Your task to perform on an android device: manage bookmarks in the chrome app Image 0: 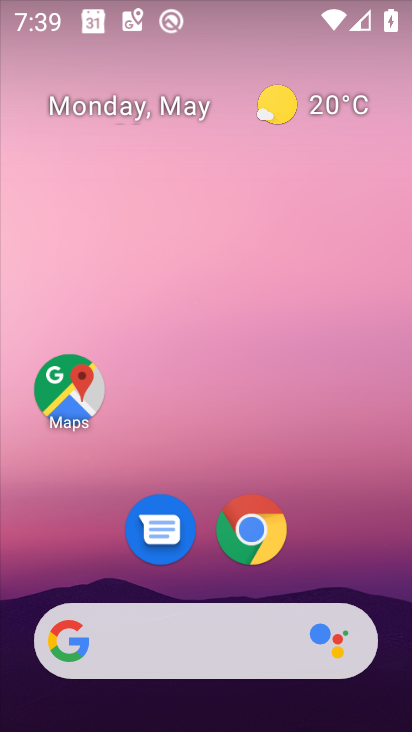
Step 0: click (237, 527)
Your task to perform on an android device: manage bookmarks in the chrome app Image 1: 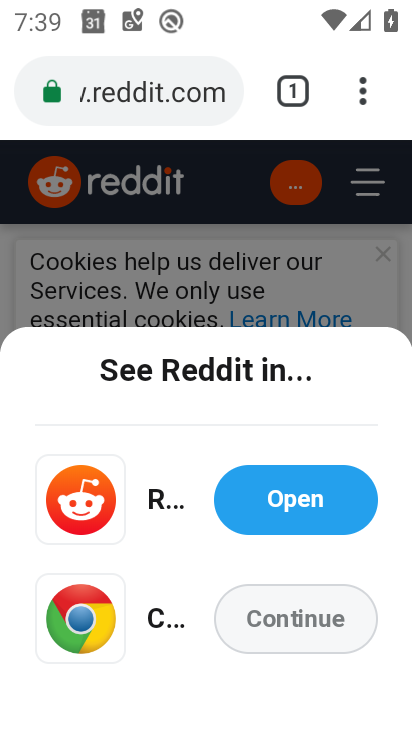
Step 1: press back button
Your task to perform on an android device: manage bookmarks in the chrome app Image 2: 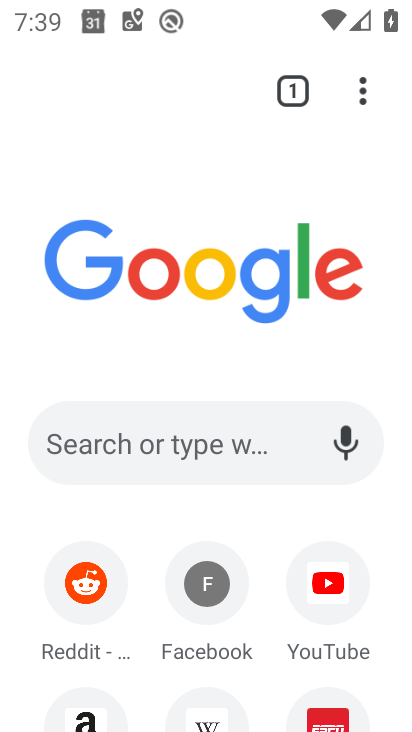
Step 2: click (365, 86)
Your task to perform on an android device: manage bookmarks in the chrome app Image 3: 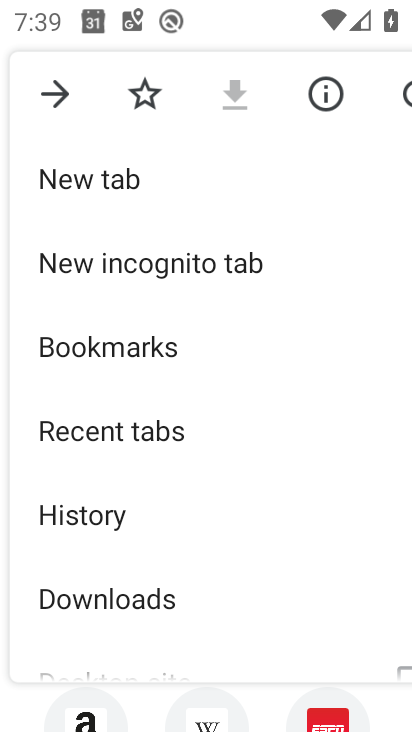
Step 3: click (106, 344)
Your task to perform on an android device: manage bookmarks in the chrome app Image 4: 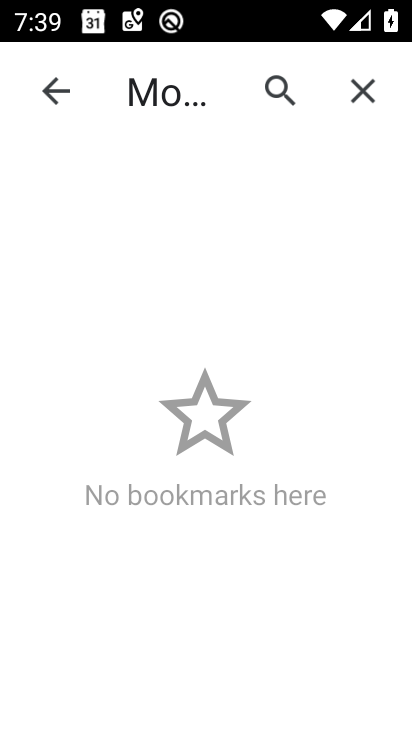
Step 4: task complete